Your task to perform on an android device: Open eBay Image 0: 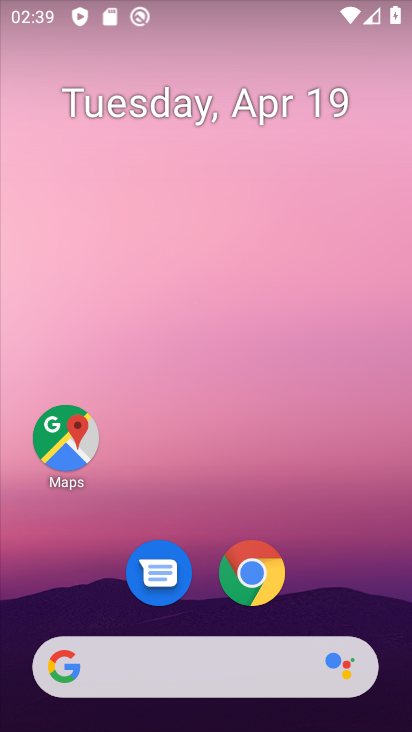
Step 0: drag from (310, 566) to (252, 138)
Your task to perform on an android device: Open eBay Image 1: 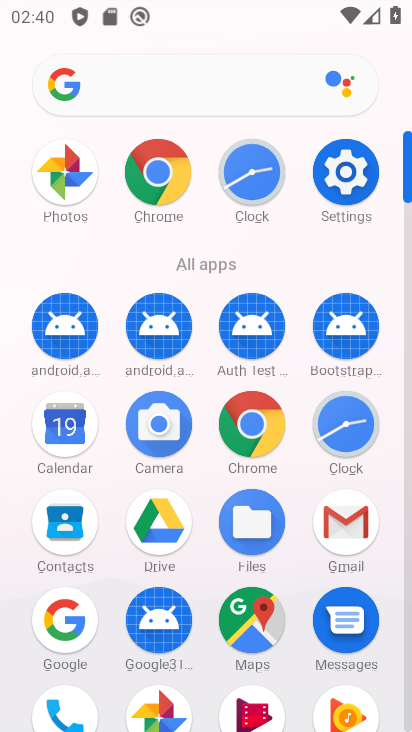
Step 1: click (246, 423)
Your task to perform on an android device: Open eBay Image 2: 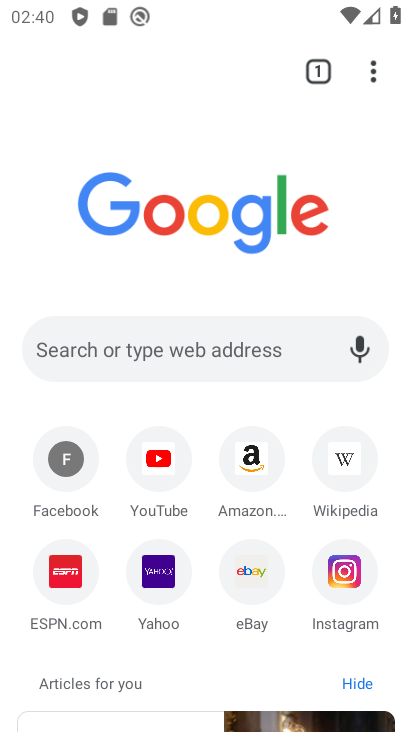
Step 2: click (164, 348)
Your task to perform on an android device: Open eBay Image 3: 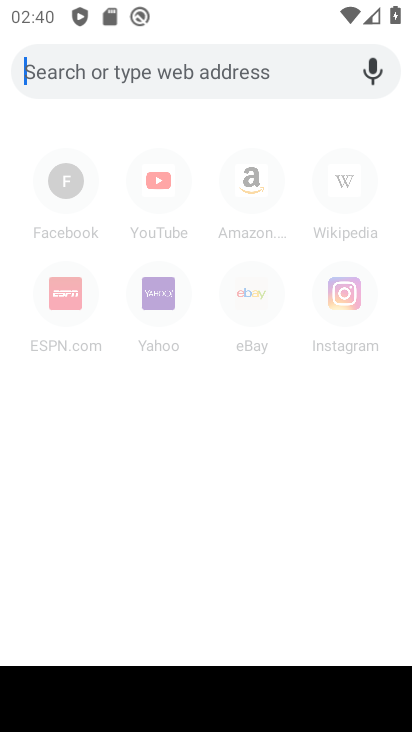
Step 3: type " eBay"
Your task to perform on an android device: Open eBay Image 4: 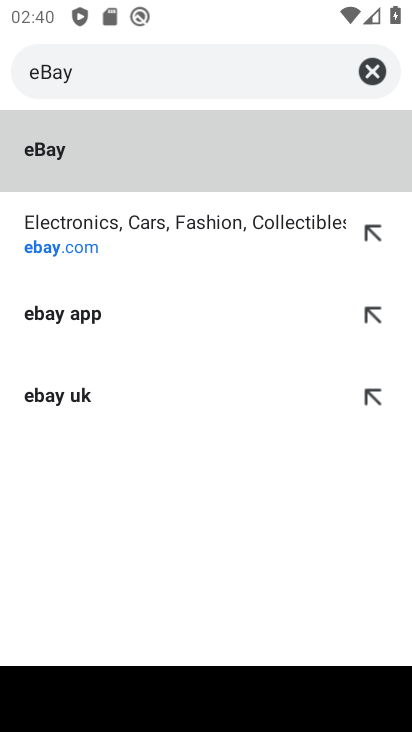
Step 4: click (62, 243)
Your task to perform on an android device: Open eBay Image 5: 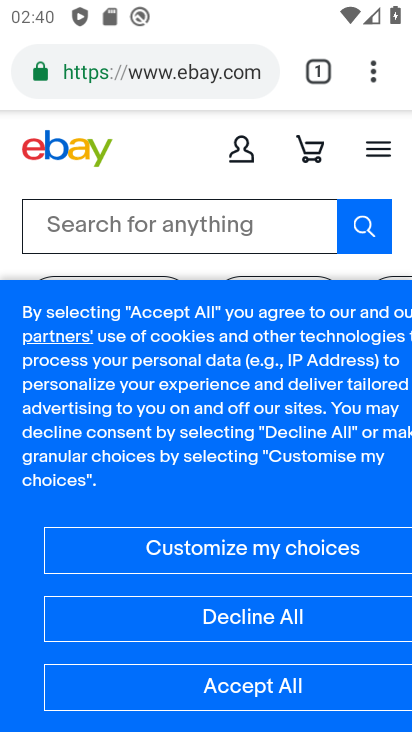
Step 5: task complete